Your task to perform on an android device: turn on the 12-hour format for clock Image 0: 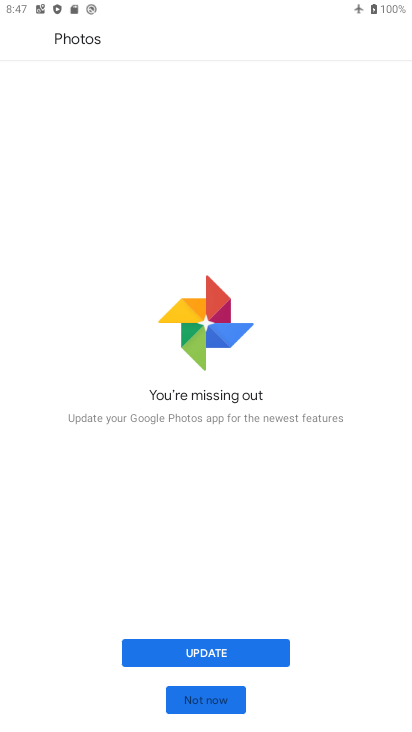
Step 0: click (209, 707)
Your task to perform on an android device: turn on the 12-hour format for clock Image 1: 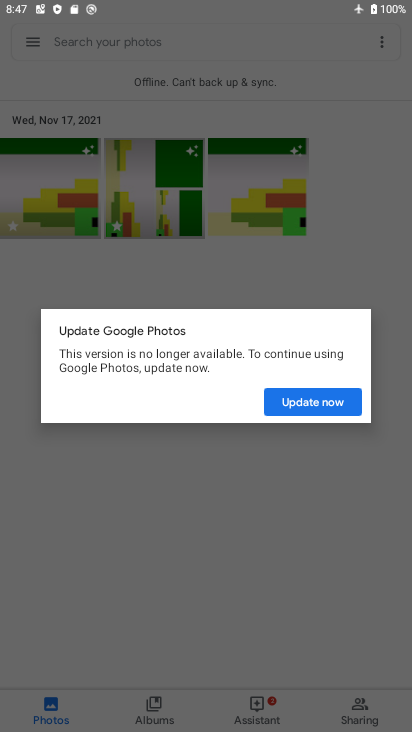
Step 1: click (291, 406)
Your task to perform on an android device: turn on the 12-hour format for clock Image 2: 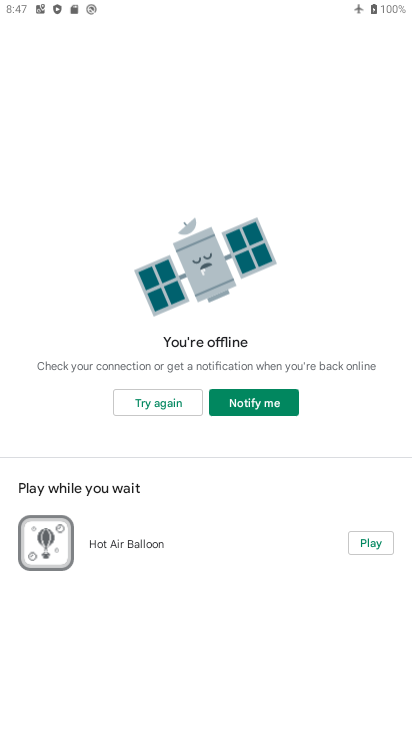
Step 2: click (143, 403)
Your task to perform on an android device: turn on the 12-hour format for clock Image 3: 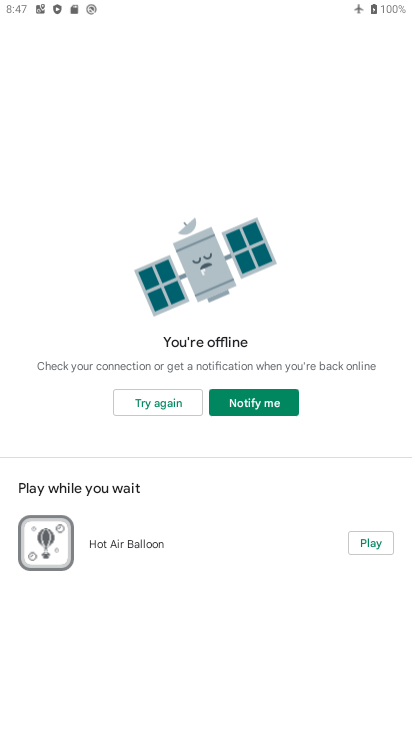
Step 3: task complete